Your task to perform on an android device: Go to calendar. Show me events next week Image 0: 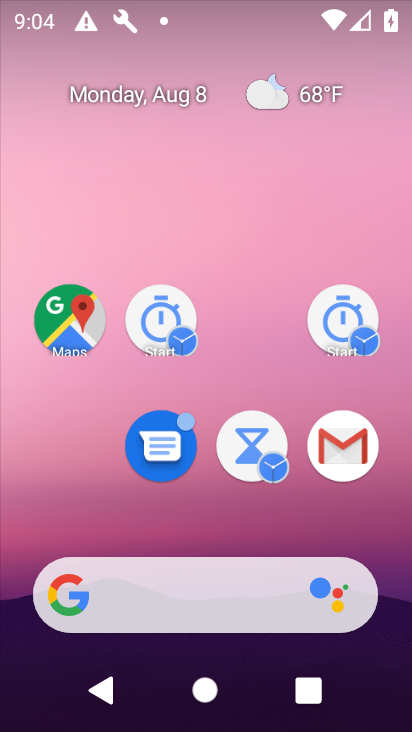
Step 0: drag from (292, 589) to (175, 174)
Your task to perform on an android device: Go to calendar. Show me events next week Image 1: 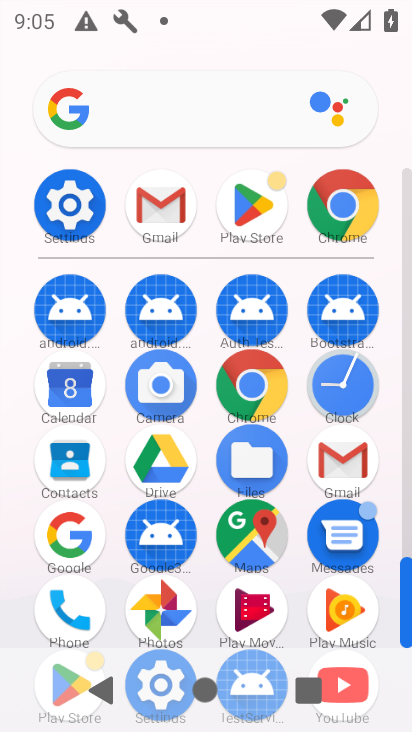
Step 1: drag from (114, 425) to (114, 306)
Your task to perform on an android device: Go to calendar. Show me events next week Image 2: 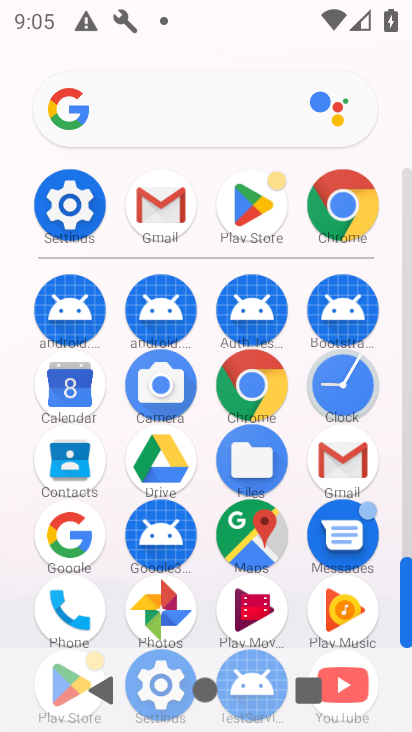
Step 2: drag from (110, 496) to (107, 233)
Your task to perform on an android device: Go to calendar. Show me events next week Image 3: 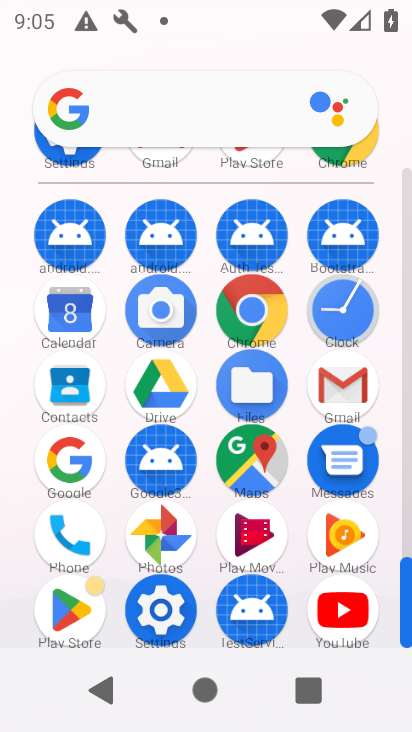
Step 3: click (64, 312)
Your task to perform on an android device: Go to calendar. Show me events next week Image 4: 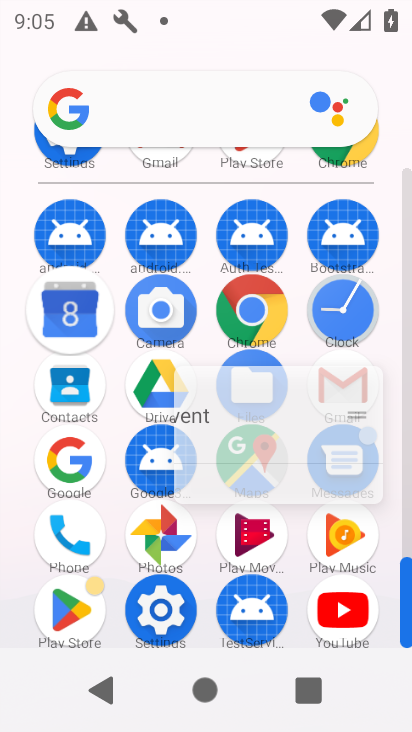
Step 4: click (64, 312)
Your task to perform on an android device: Go to calendar. Show me events next week Image 5: 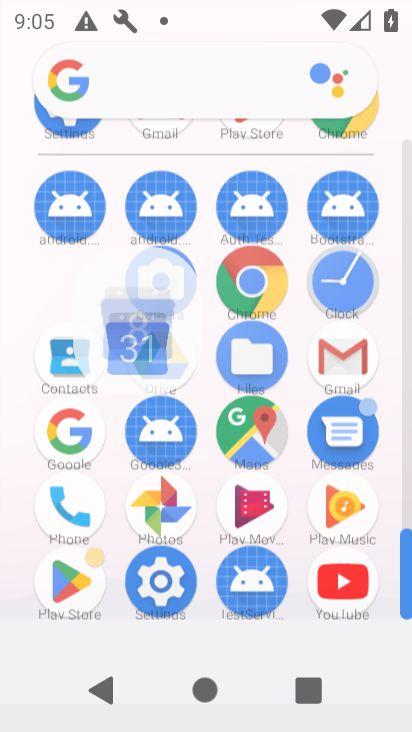
Step 5: click (76, 311)
Your task to perform on an android device: Go to calendar. Show me events next week Image 6: 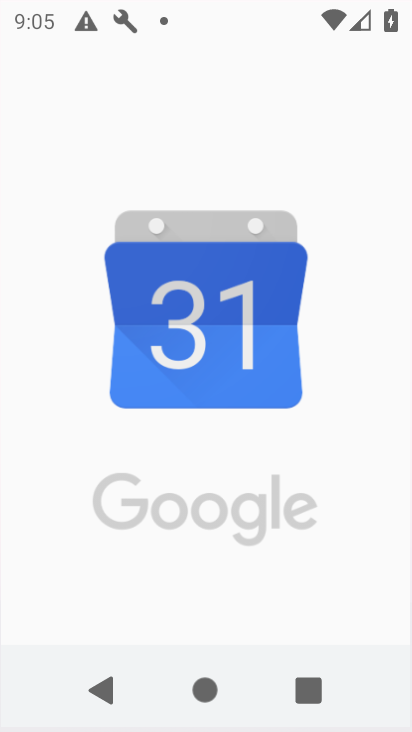
Step 6: click (78, 311)
Your task to perform on an android device: Go to calendar. Show me events next week Image 7: 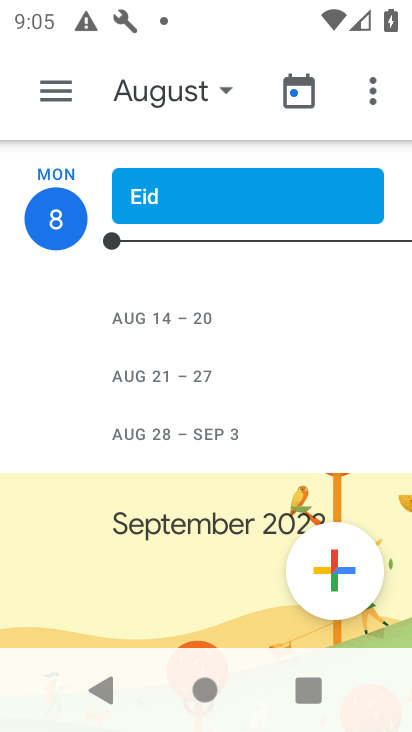
Step 7: click (215, 79)
Your task to perform on an android device: Go to calendar. Show me events next week Image 8: 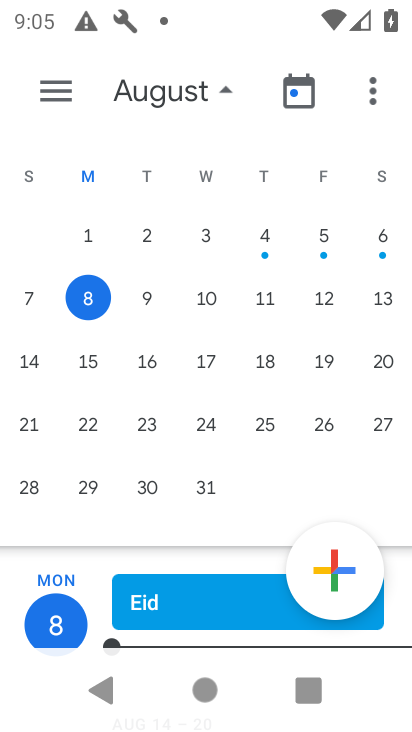
Step 8: drag from (272, 278) to (20, 331)
Your task to perform on an android device: Go to calendar. Show me events next week Image 9: 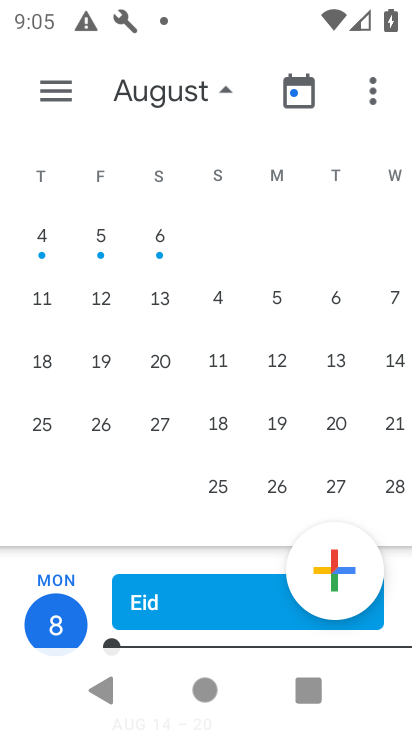
Step 9: drag from (154, 298) to (93, 299)
Your task to perform on an android device: Go to calendar. Show me events next week Image 10: 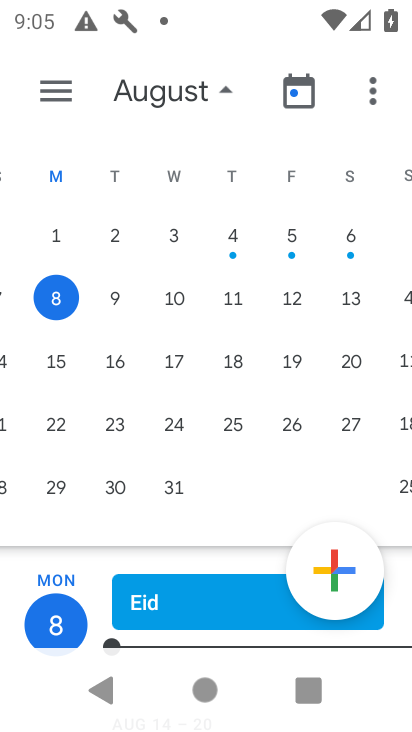
Step 10: click (59, 317)
Your task to perform on an android device: Go to calendar. Show me events next week Image 11: 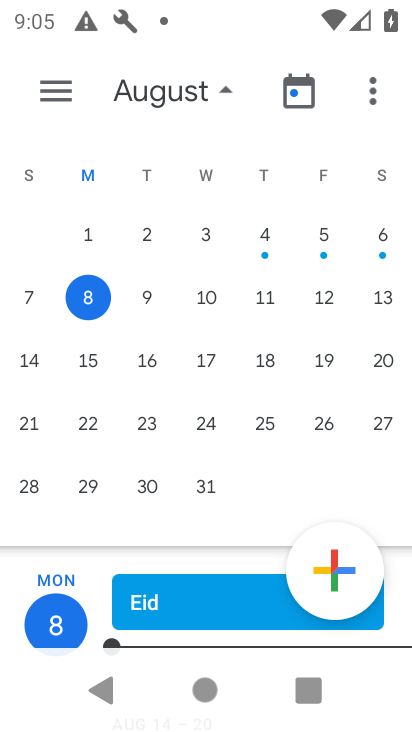
Step 11: click (91, 363)
Your task to perform on an android device: Go to calendar. Show me events next week Image 12: 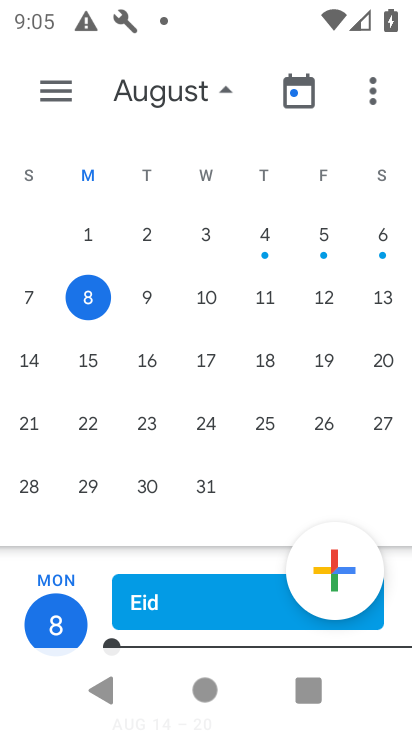
Step 12: click (91, 363)
Your task to perform on an android device: Go to calendar. Show me events next week Image 13: 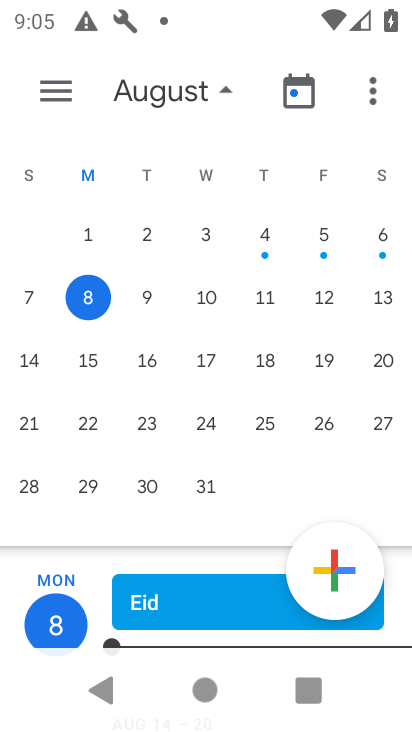
Step 13: click (90, 363)
Your task to perform on an android device: Go to calendar. Show me events next week Image 14: 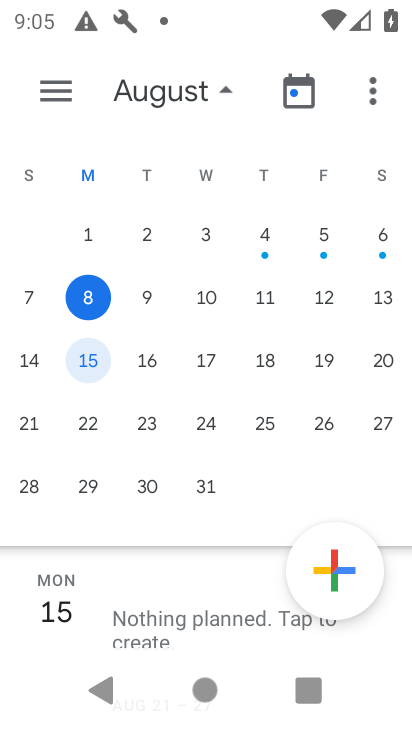
Step 14: click (88, 365)
Your task to perform on an android device: Go to calendar. Show me events next week Image 15: 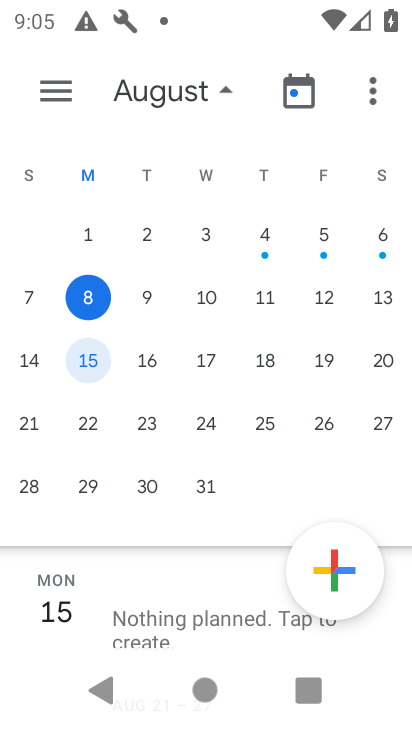
Step 15: task complete